Your task to perform on an android device: toggle data saver in the chrome app Image 0: 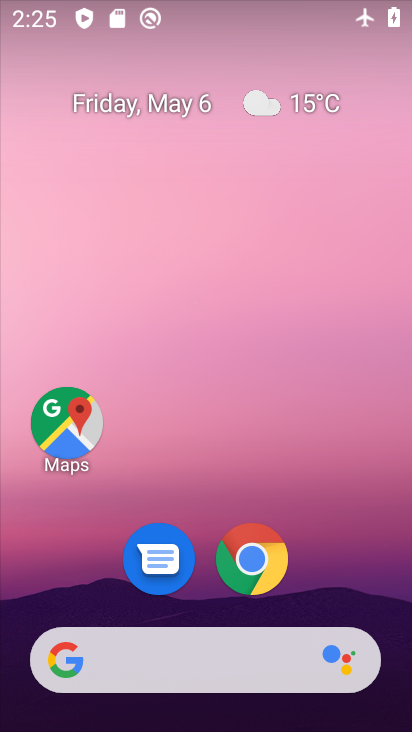
Step 0: click (270, 546)
Your task to perform on an android device: toggle data saver in the chrome app Image 1: 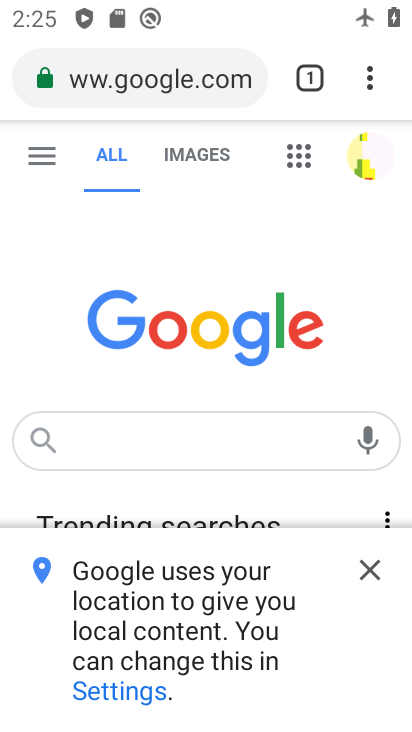
Step 1: click (367, 92)
Your task to perform on an android device: toggle data saver in the chrome app Image 2: 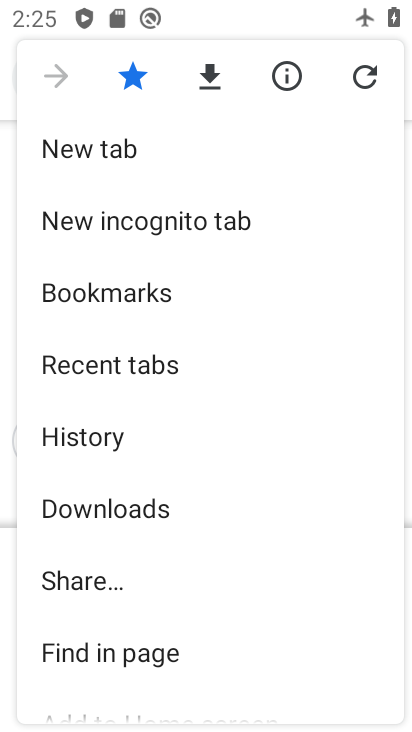
Step 2: drag from (211, 582) to (222, 399)
Your task to perform on an android device: toggle data saver in the chrome app Image 3: 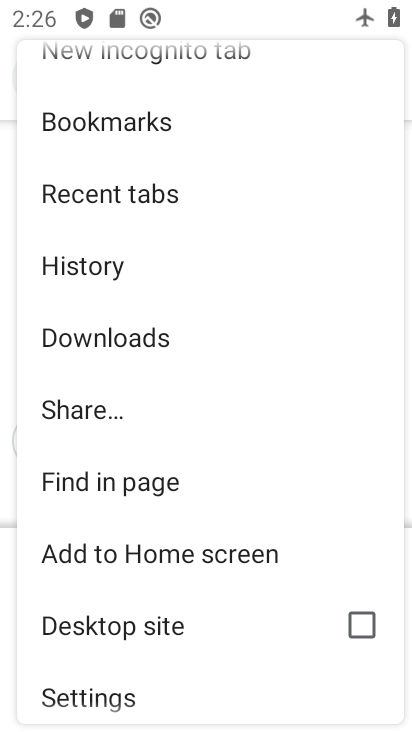
Step 3: click (113, 684)
Your task to perform on an android device: toggle data saver in the chrome app Image 4: 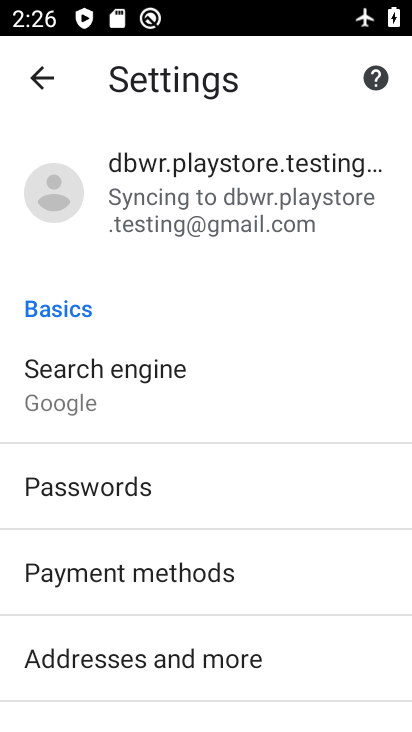
Step 4: drag from (185, 642) to (204, 389)
Your task to perform on an android device: toggle data saver in the chrome app Image 5: 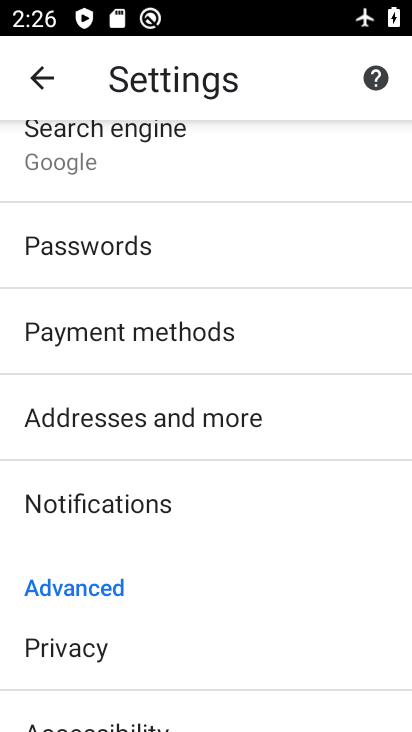
Step 5: drag from (144, 654) to (170, 321)
Your task to perform on an android device: toggle data saver in the chrome app Image 6: 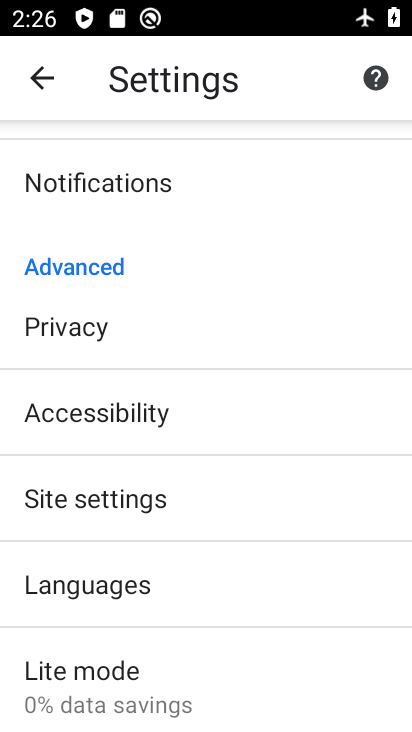
Step 6: click (90, 663)
Your task to perform on an android device: toggle data saver in the chrome app Image 7: 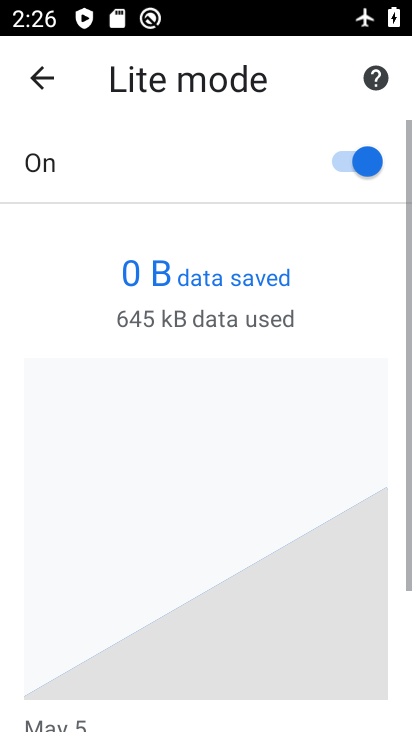
Step 7: click (345, 172)
Your task to perform on an android device: toggle data saver in the chrome app Image 8: 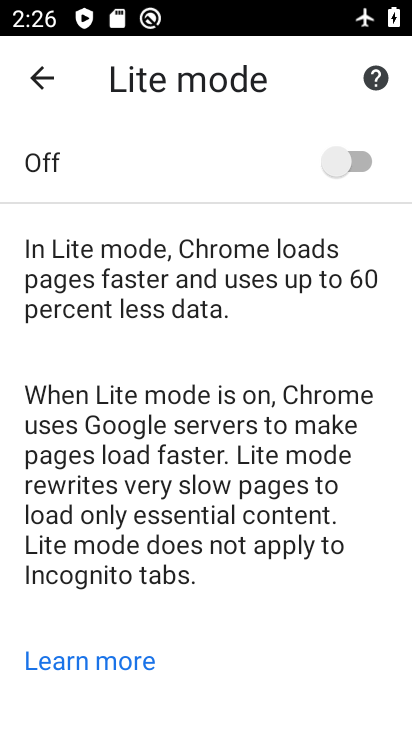
Step 8: task complete